Your task to perform on an android device: Go to settings Image 0: 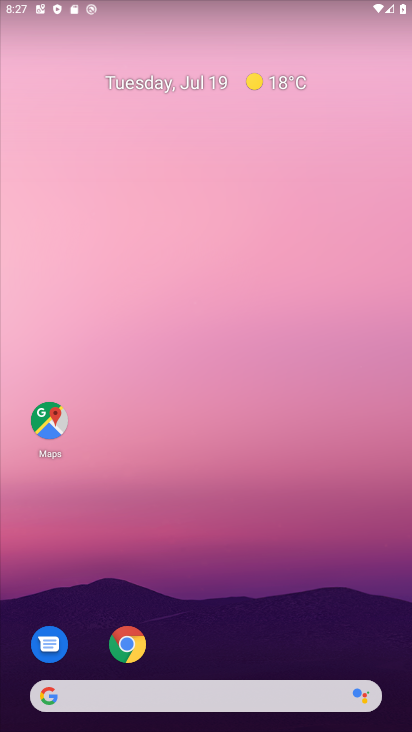
Step 0: drag from (208, 720) to (172, 216)
Your task to perform on an android device: Go to settings Image 1: 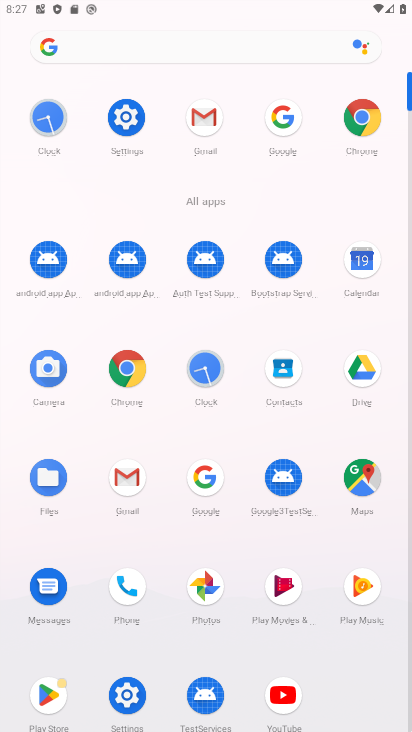
Step 1: click (125, 106)
Your task to perform on an android device: Go to settings Image 2: 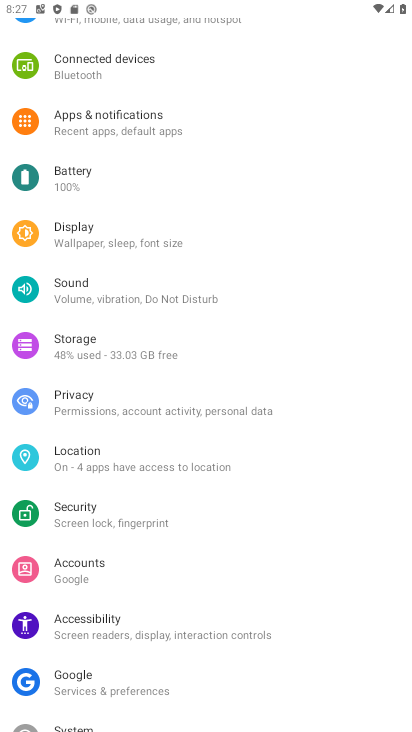
Step 2: task complete